Your task to perform on an android device: Go to privacy settings Image 0: 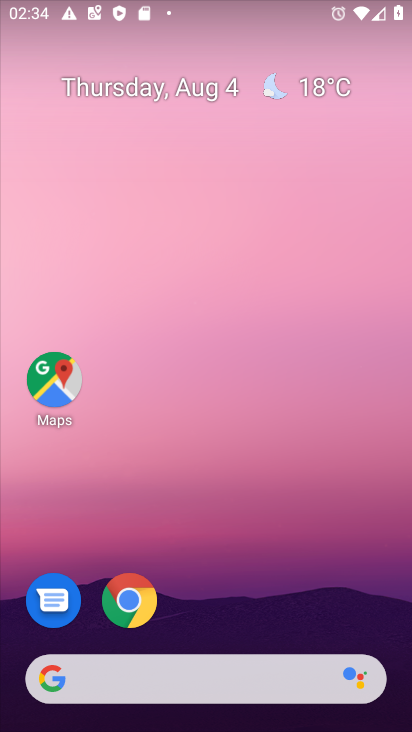
Step 0: drag from (207, 625) to (287, 121)
Your task to perform on an android device: Go to privacy settings Image 1: 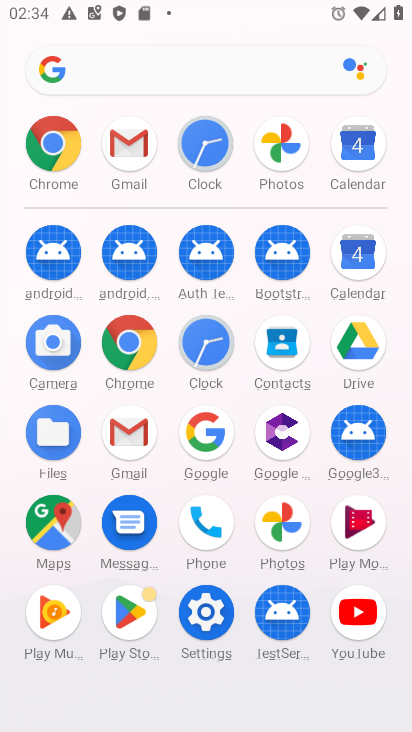
Step 1: click (205, 613)
Your task to perform on an android device: Go to privacy settings Image 2: 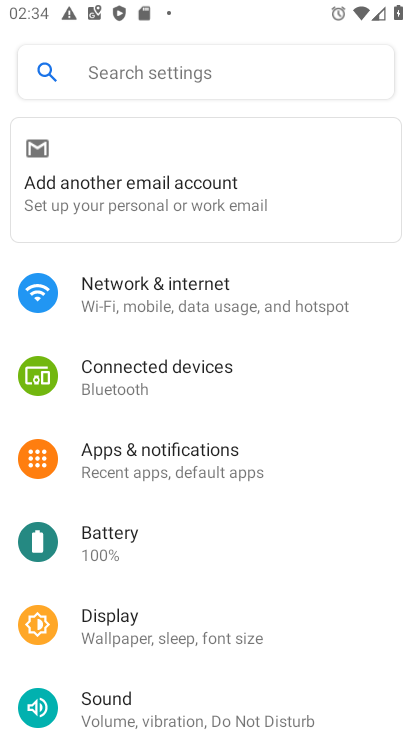
Step 2: drag from (215, 573) to (290, 272)
Your task to perform on an android device: Go to privacy settings Image 3: 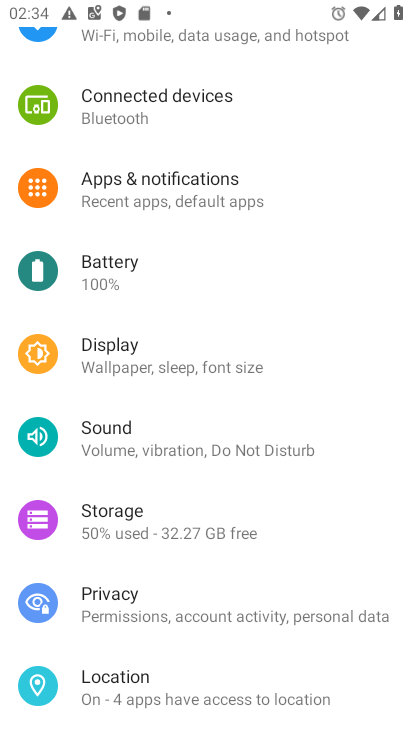
Step 3: click (138, 614)
Your task to perform on an android device: Go to privacy settings Image 4: 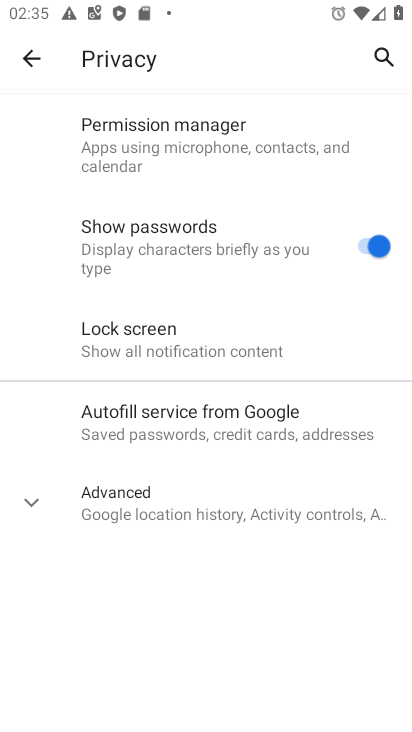
Step 4: task complete